Your task to perform on an android device: turn pop-ups on in chrome Image 0: 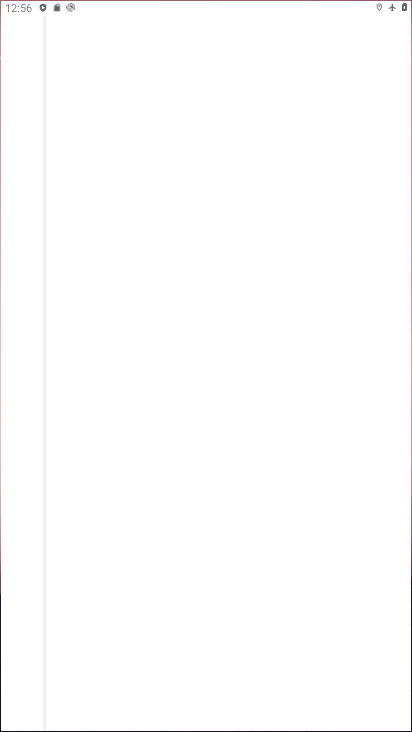
Step 0: click (69, 429)
Your task to perform on an android device: turn pop-ups on in chrome Image 1: 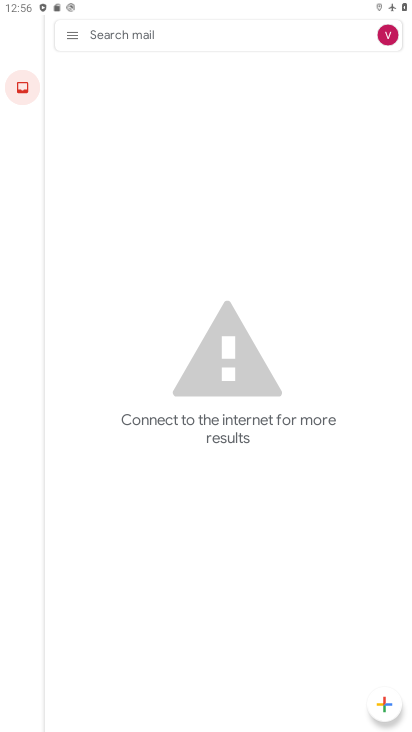
Step 1: press home button
Your task to perform on an android device: turn pop-ups on in chrome Image 2: 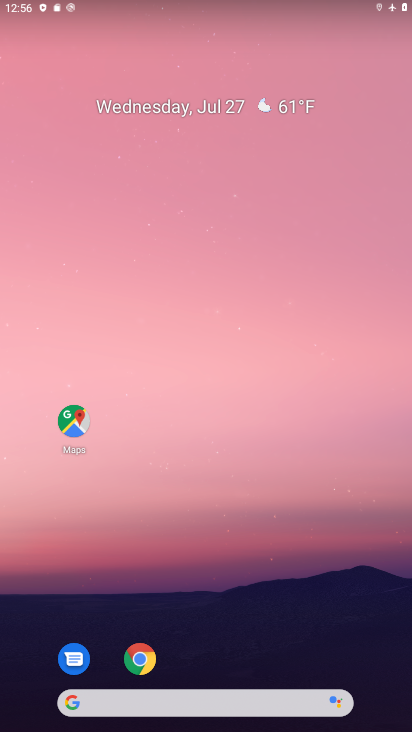
Step 2: click (60, 435)
Your task to perform on an android device: turn pop-ups on in chrome Image 3: 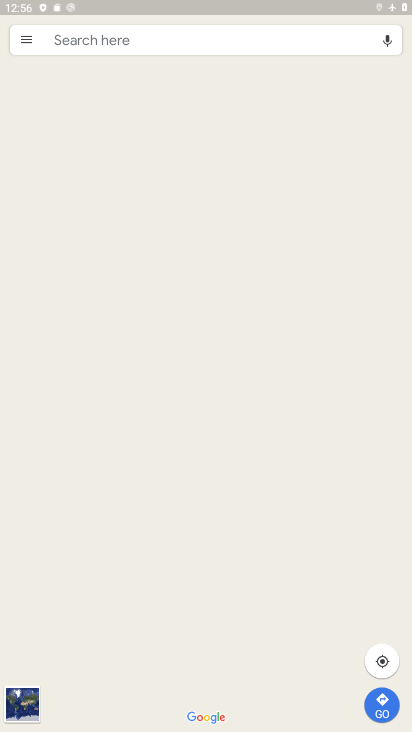
Step 3: press home button
Your task to perform on an android device: turn pop-ups on in chrome Image 4: 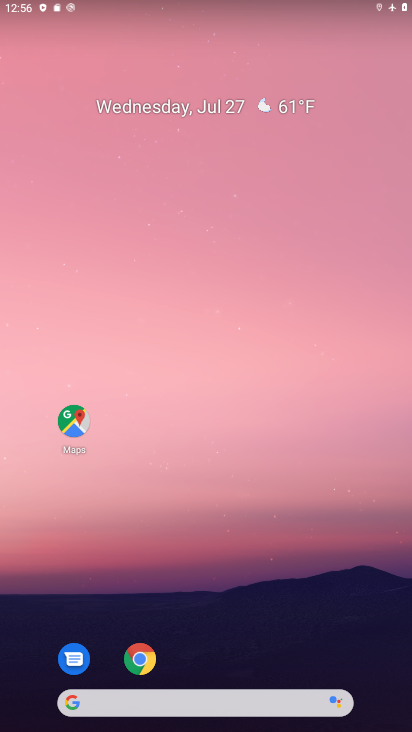
Step 4: click (149, 672)
Your task to perform on an android device: turn pop-ups on in chrome Image 5: 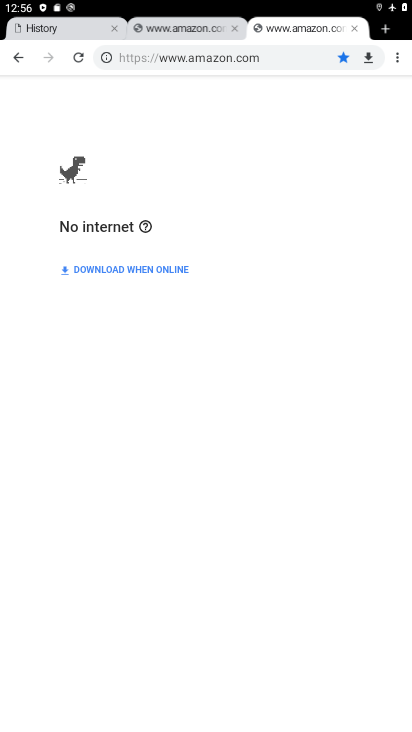
Step 5: click (374, 25)
Your task to perform on an android device: turn pop-ups on in chrome Image 6: 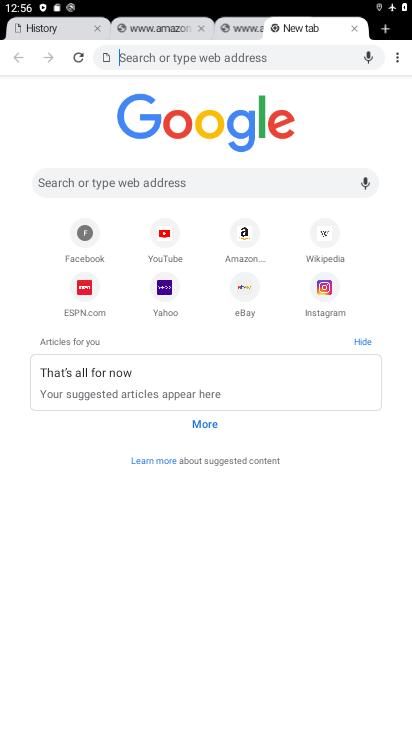
Step 6: click (391, 68)
Your task to perform on an android device: turn pop-ups on in chrome Image 7: 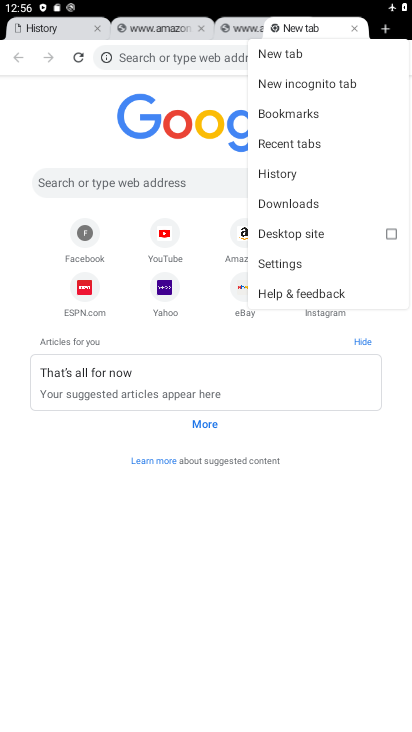
Step 7: click (287, 263)
Your task to perform on an android device: turn pop-ups on in chrome Image 8: 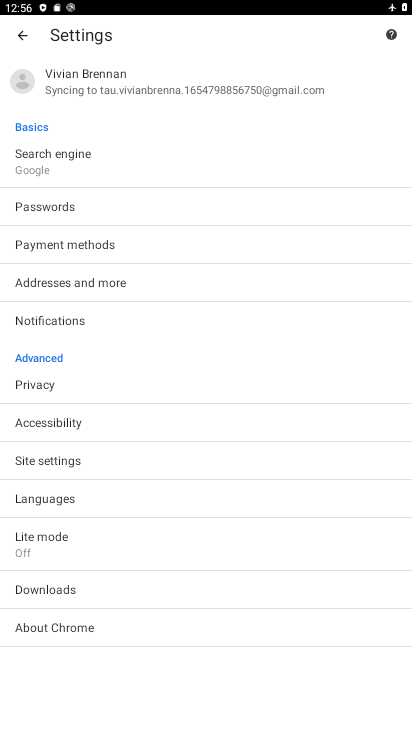
Step 8: click (71, 468)
Your task to perform on an android device: turn pop-ups on in chrome Image 9: 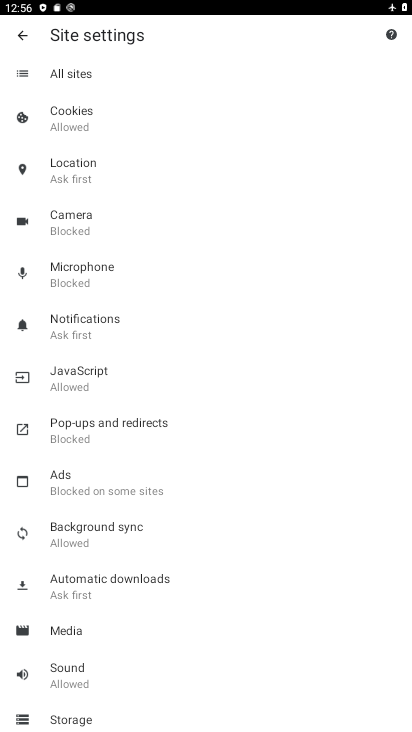
Step 9: click (147, 430)
Your task to perform on an android device: turn pop-ups on in chrome Image 10: 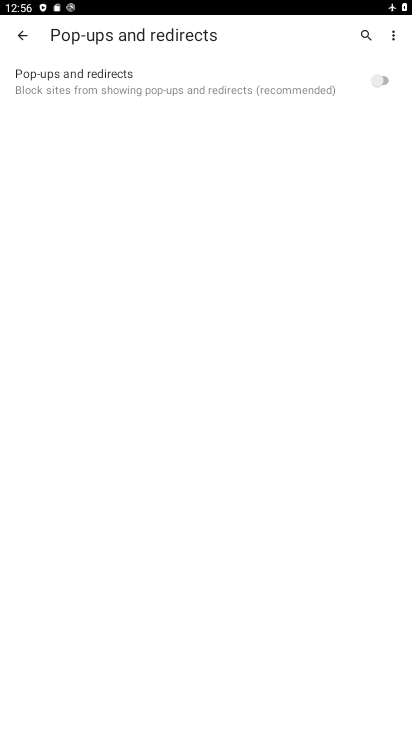
Step 10: click (388, 79)
Your task to perform on an android device: turn pop-ups on in chrome Image 11: 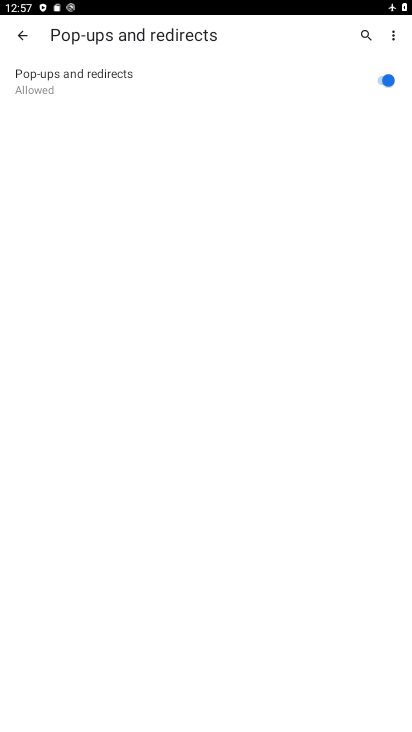
Step 11: task complete